Your task to perform on an android device: open a new tab in the chrome app Image 0: 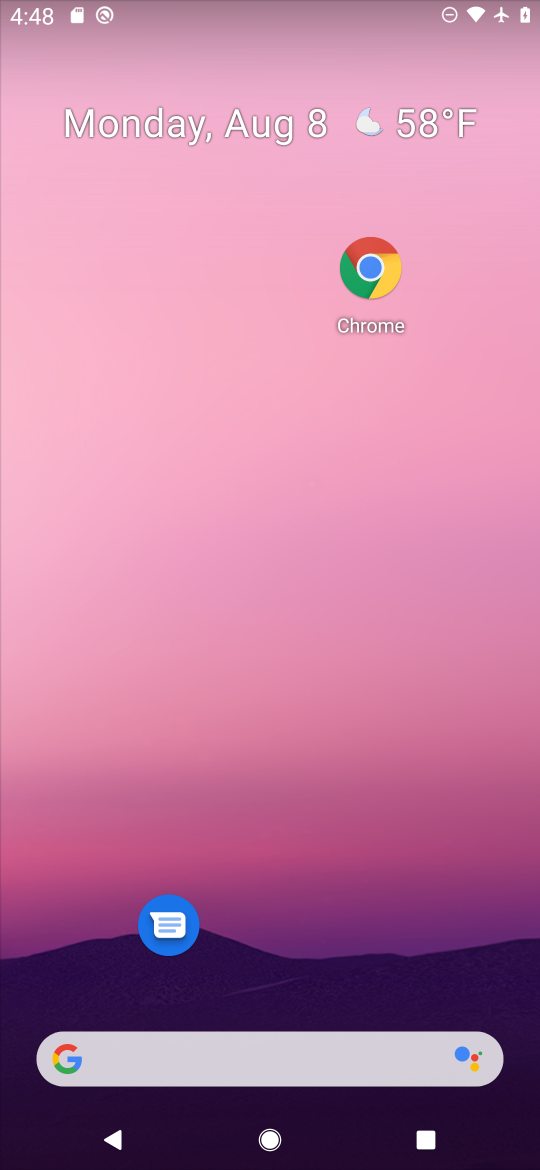
Step 0: click (374, 272)
Your task to perform on an android device: open a new tab in the chrome app Image 1: 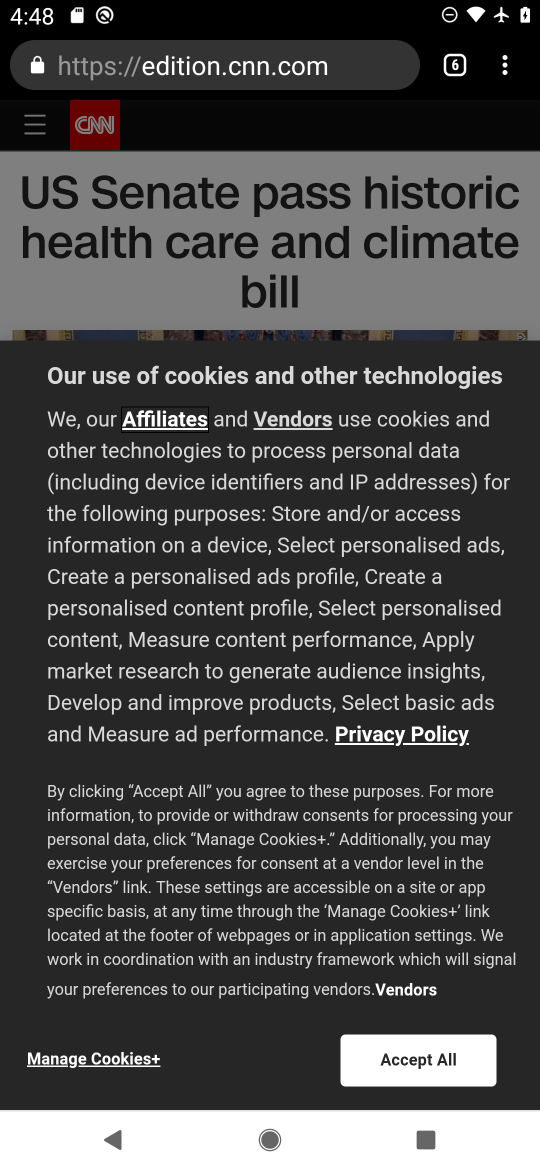
Step 1: click (502, 80)
Your task to perform on an android device: open a new tab in the chrome app Image 2: 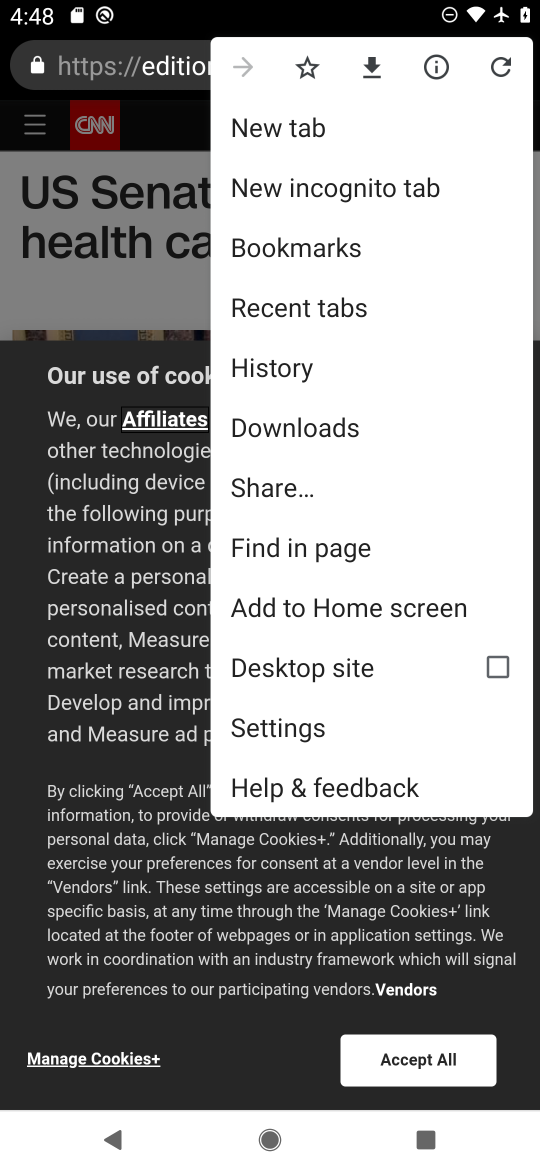
Step 2: click (288, 124)
Your task to perform on an android device: open a new tab in the chrome app Image 3: 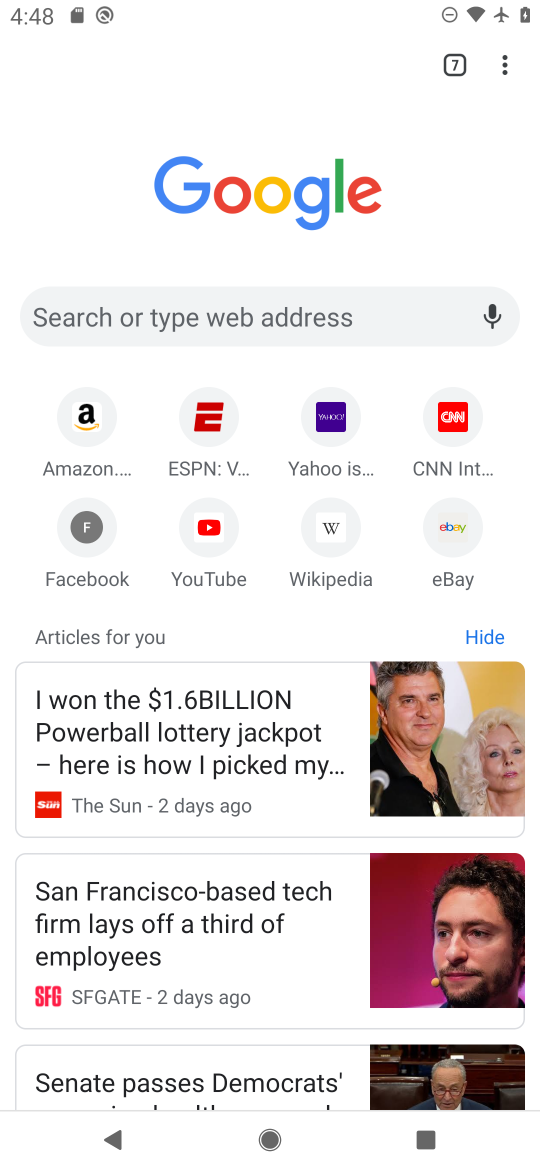
Step 3: task complete